Your task to perform on an android device: find snoozed emails in the gmail app Image 0: 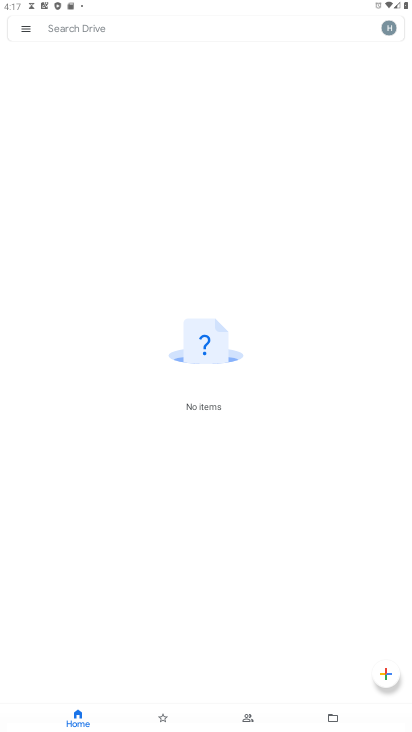
Step 0: press home button
Your task to perform on an android device: find snoozed emails in the gmail app Image 1: 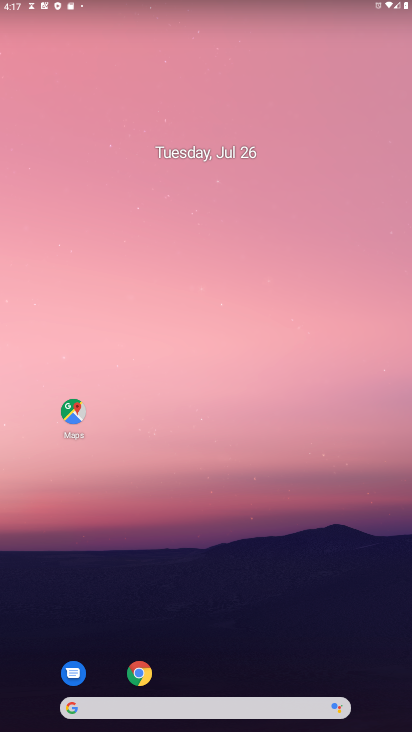
Step 1: drag from (199, 704) to (221, 152)
Your task to perform on an android device: find snoozed emails in the gmail app Image 2: 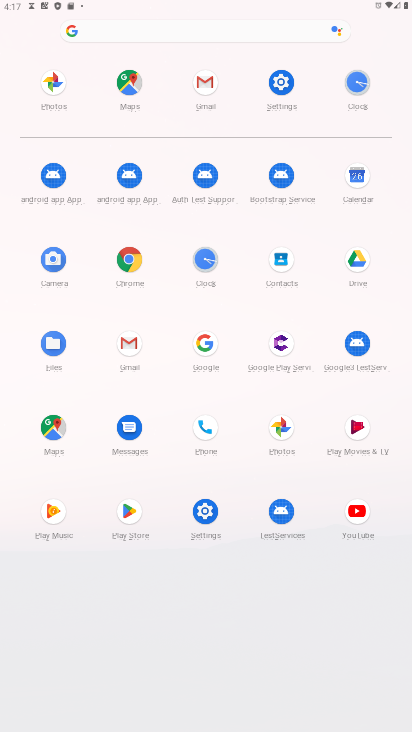
Step 2: click (129, 340)
Your task to perform on an android device: find snoozed emails in the gmail app Image 3: 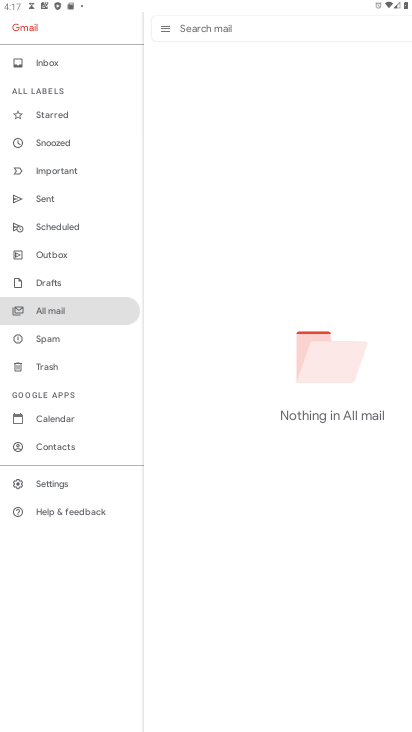
Step 3: click (38, 64)
Your task to perform on an android device: find snoozed emails in the gmail app Image 4: 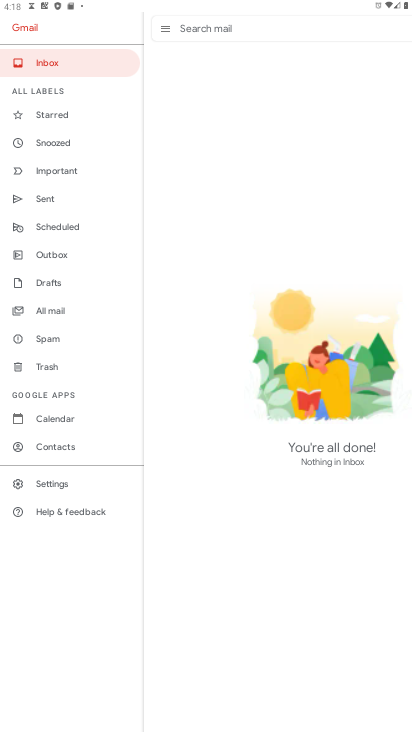
Step 4: click (58, 148)
Your task to perform on an android device: find snoozed emails in the gmail app Image 5: 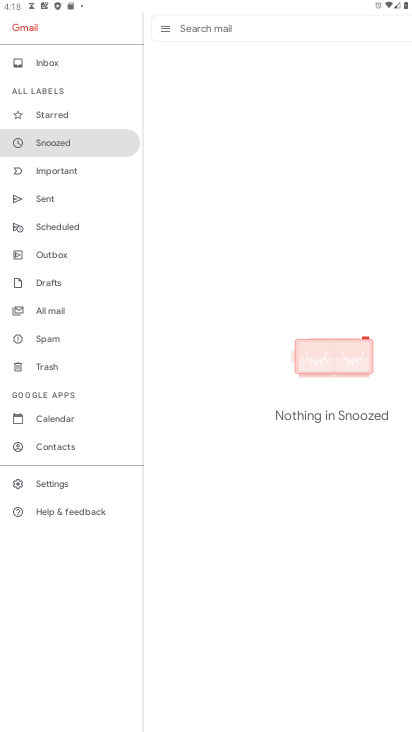
Step 5: click (54, 119)
Your task to perform on an android device: find snoozed emails in the gmail app Image 6: 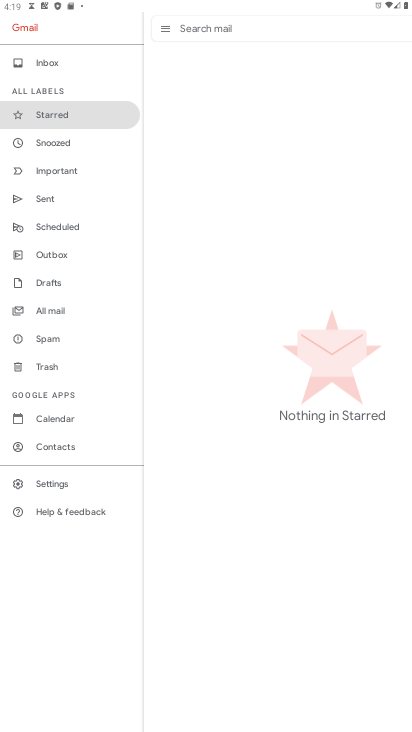
Step 6: click (65, 228)
Your task to perform on an android device: find snoozed emails in the gmail app Image 7: 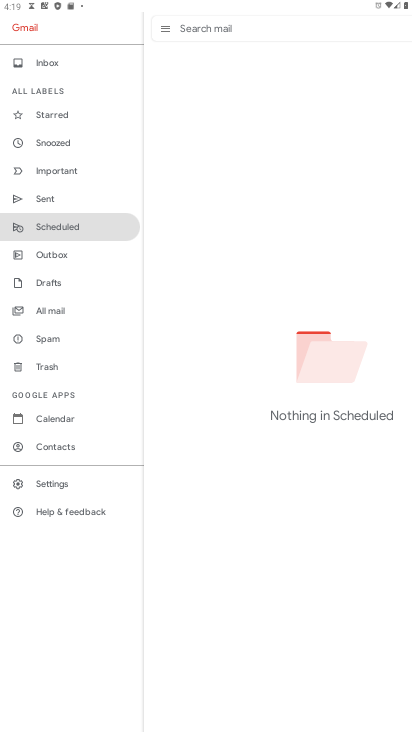
Step 7: task complete